Your task to perform on an android device: Open Amazon Image 0: 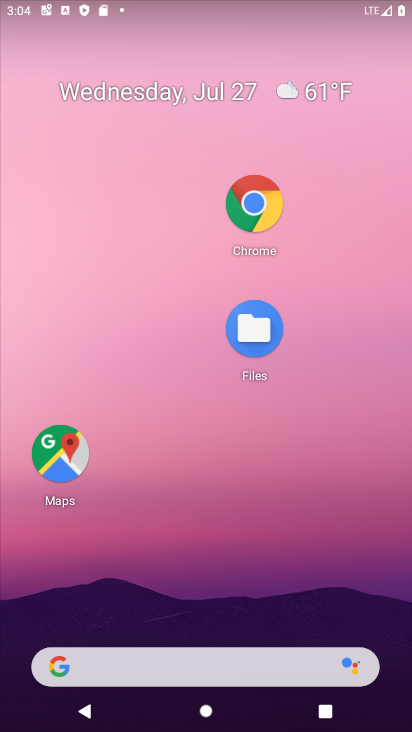
Step 0: drag from (219, 599) to (244, 56)
Your task to perform on an android device: Open Amazon Image 1: 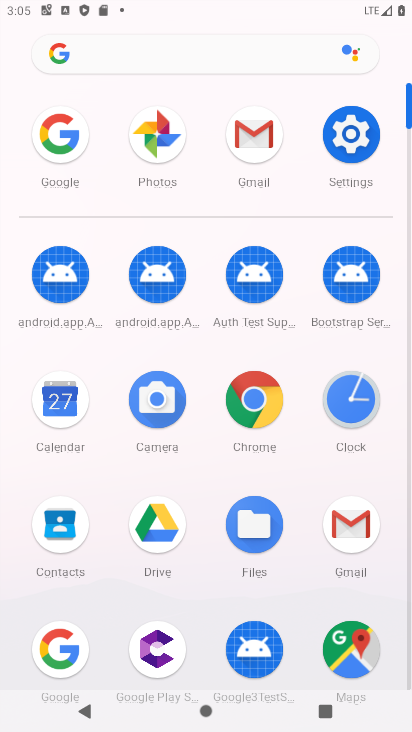
Step 1: click (68, 640)
Your task to perform on an android device: Open Amazon Image 2: 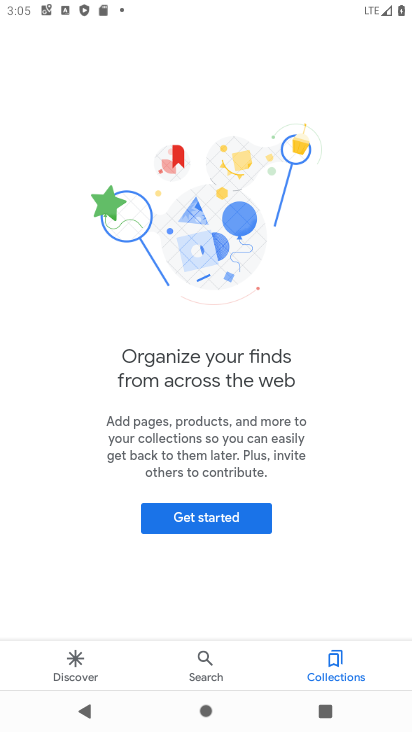
Step 2: press home button
Your task to perform on an android device: Open Amazon Image 3: 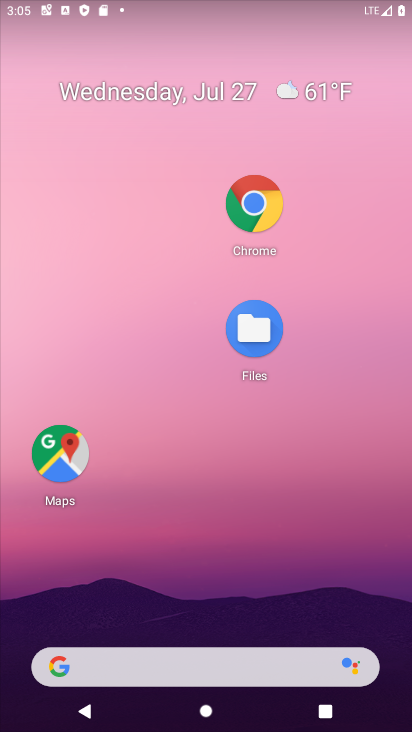
Step 3: click (264, 208)
Your task to perform on an android device: Open Amazon Image 4: 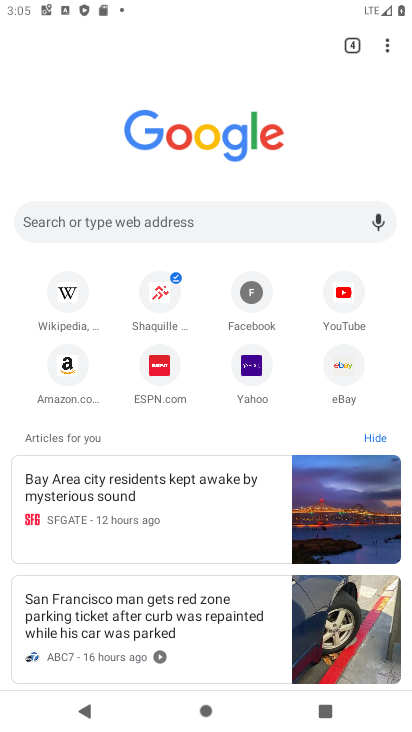
Step 4: click (60, 382)
Your task to perform on an android device: Open Amazon Image 5: 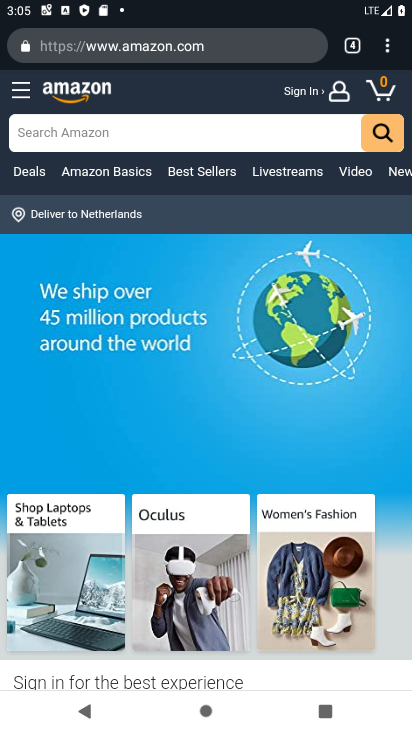
Step 5: task complete